Your task to perform on an android device: Open internet settings Image 0: 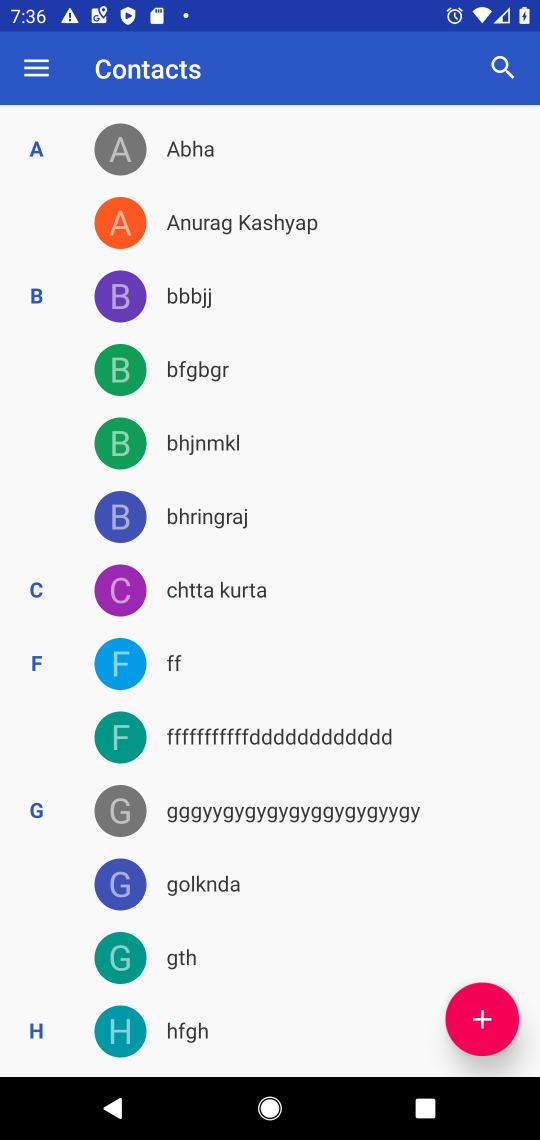
Step 0: press home button
Your task to perform on an android device: Open internet settings Image 1: 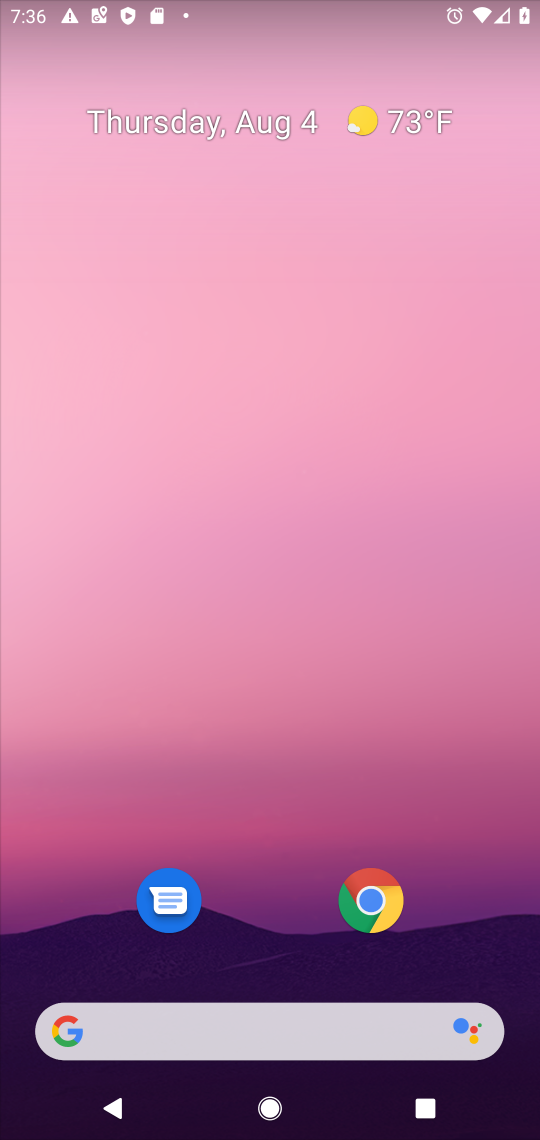
Step 1: drag from (244, 1025) to (249, 276)
Your task to perform on an android device: Open internet settings Image 2: 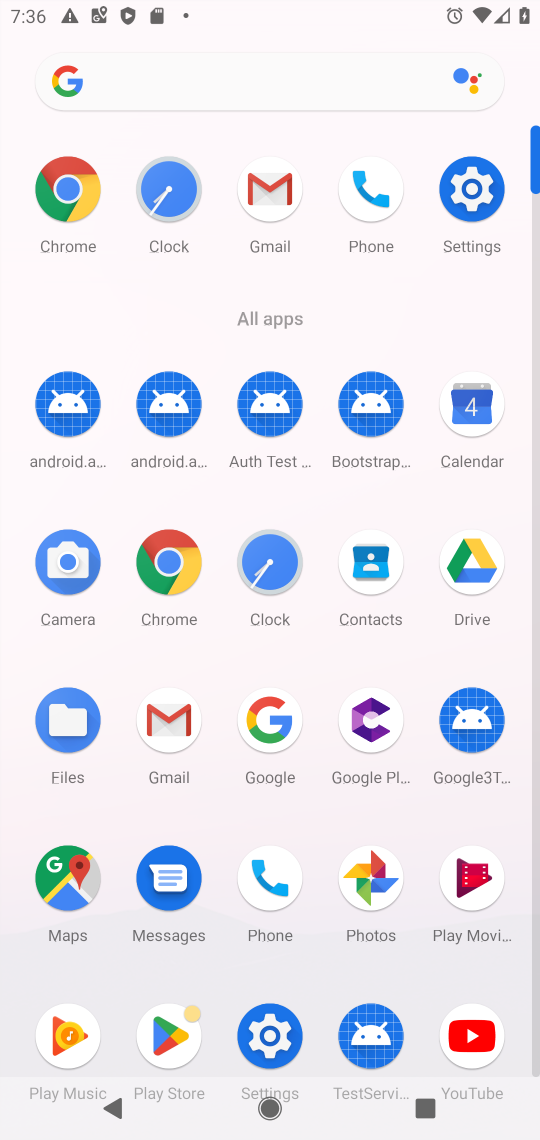
Step 2: click (470, 188)
Your task to perform on an android device: Open internet settings Image 3: 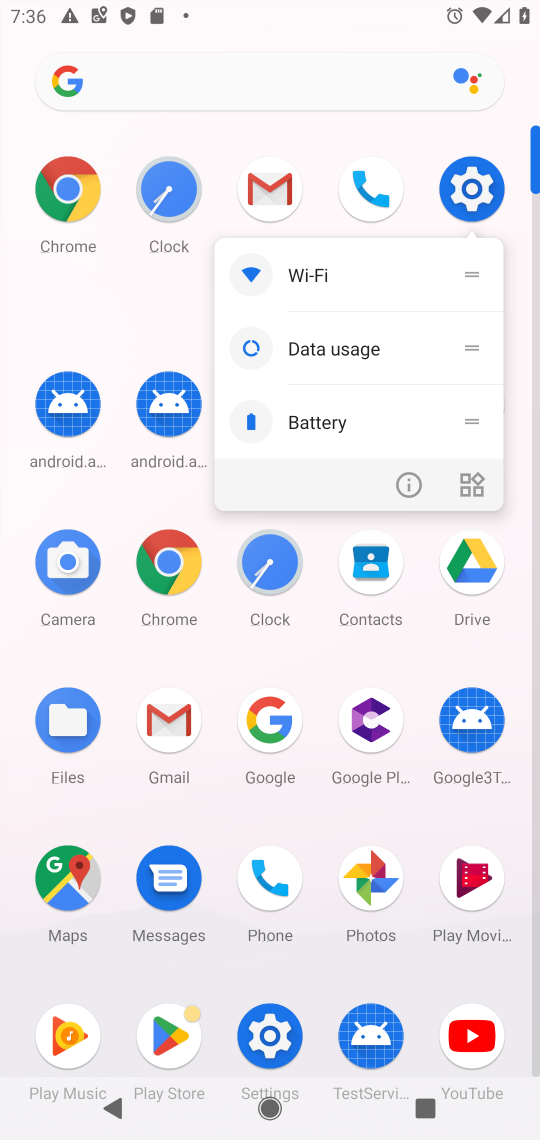
Step 3: click (470, 188)
Your task to perform on an android device: Open internet settings Image 4: 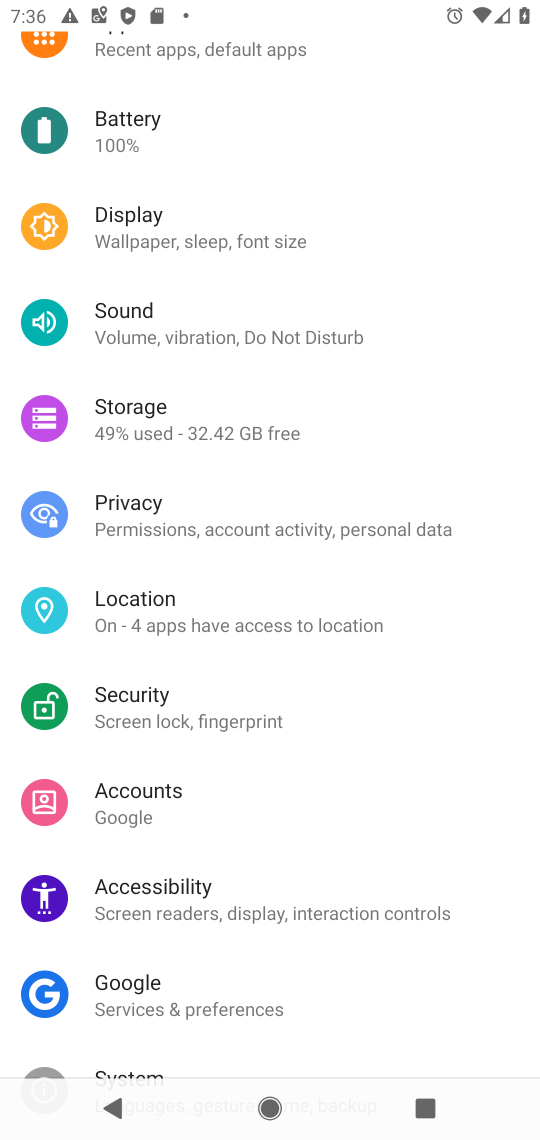
Step 4: drag from (232, 285) to (181, 460)
Your task to perform on an android device: Open internet settings Image 5: 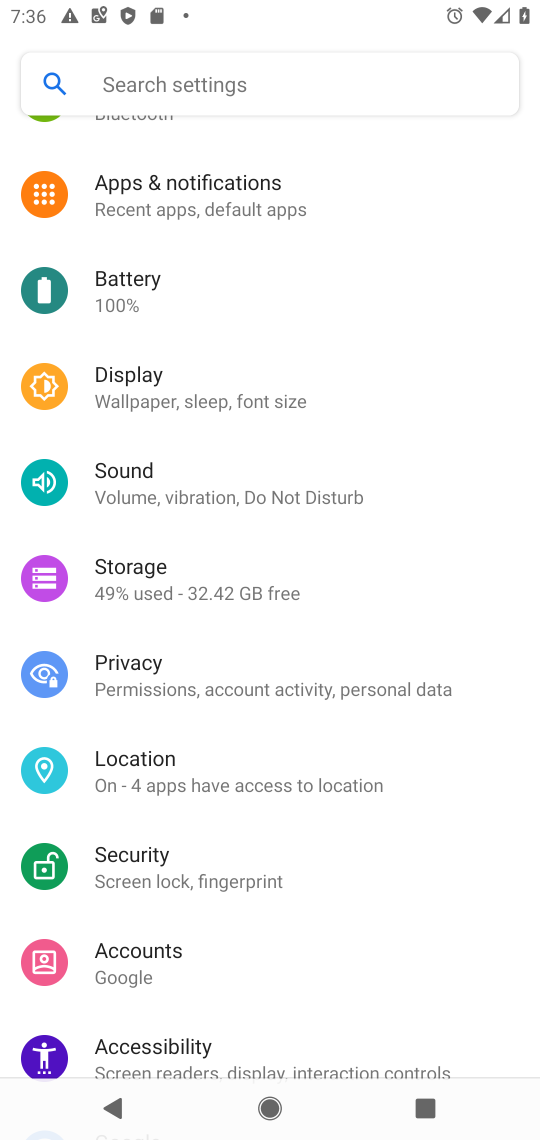
Step 5: drag from (211, 260) to (231, 587)
Your task to perform on an android device: Open internet settings Image 6: 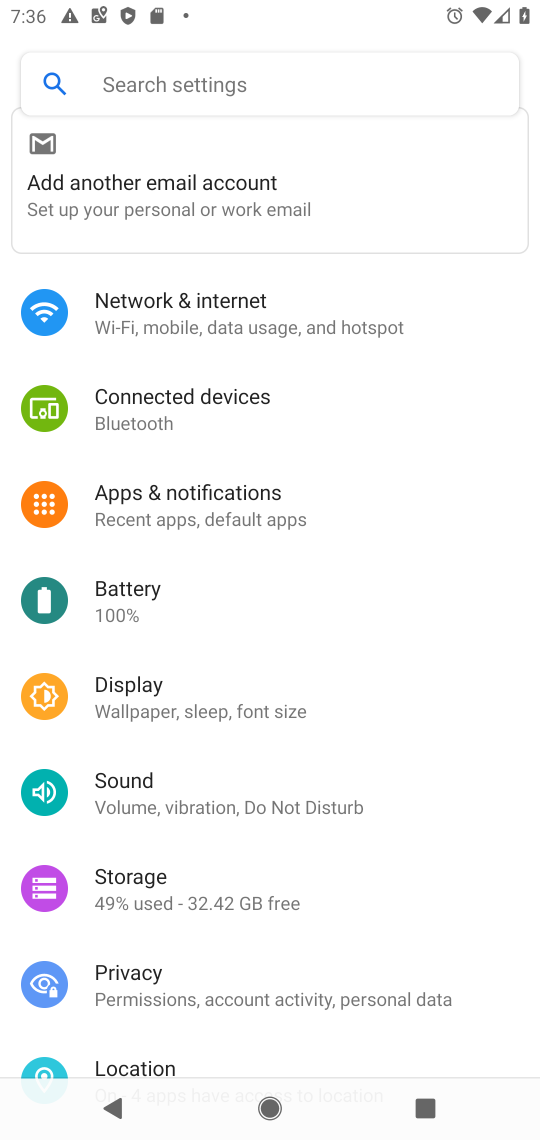
Step 6: click (264, 315)
Your task to perform on an android device: Open internet settings Image 7: 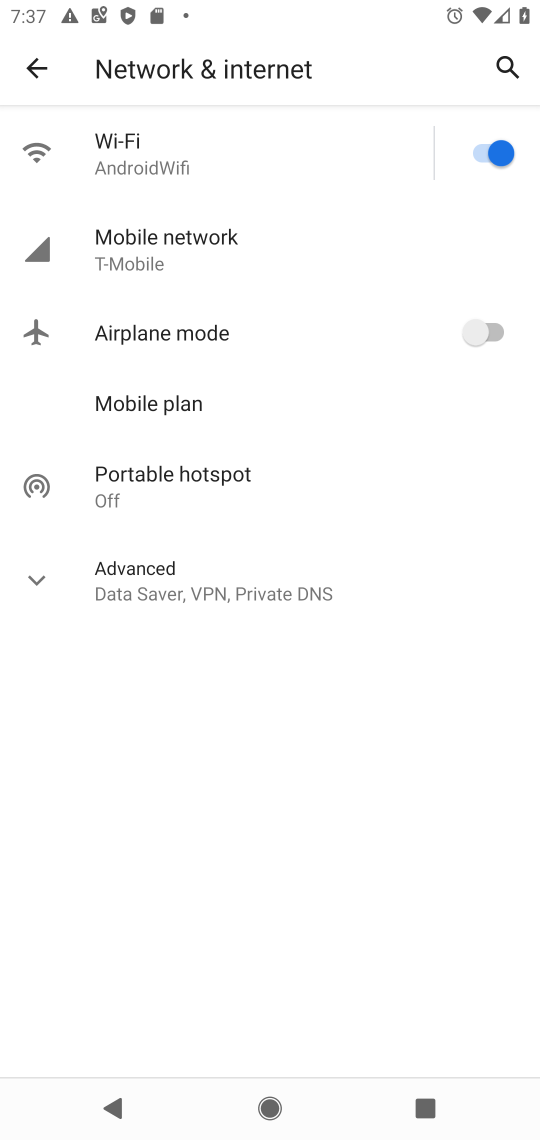
Step 7: click (126, 152)
Your task to perform on an android device: Open internet settings Image 8: 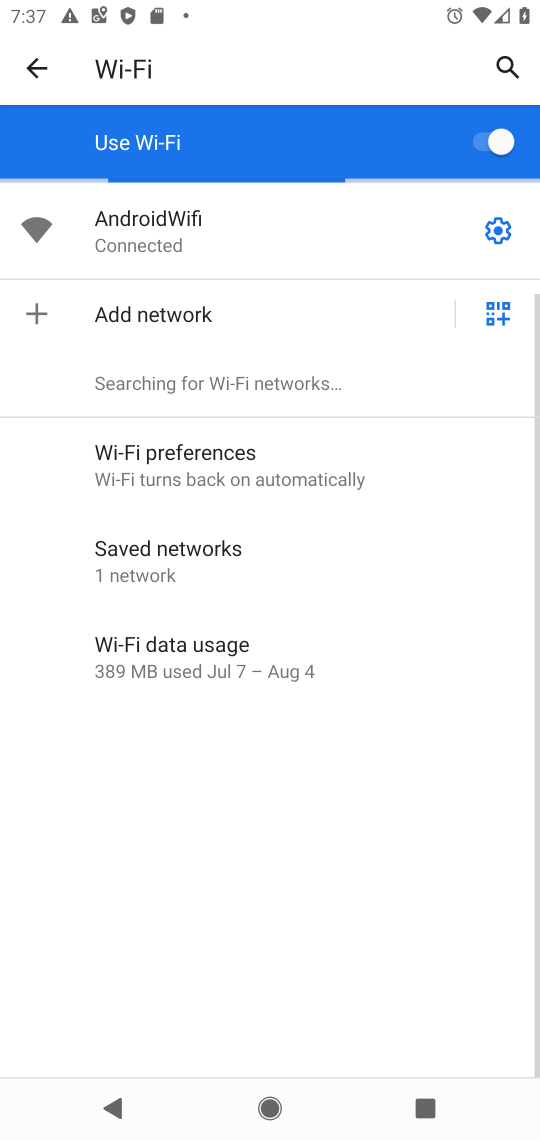
Step 8: task complete